Your task to perform on an android device: Search for sushi restaurants on Maps Image 0: 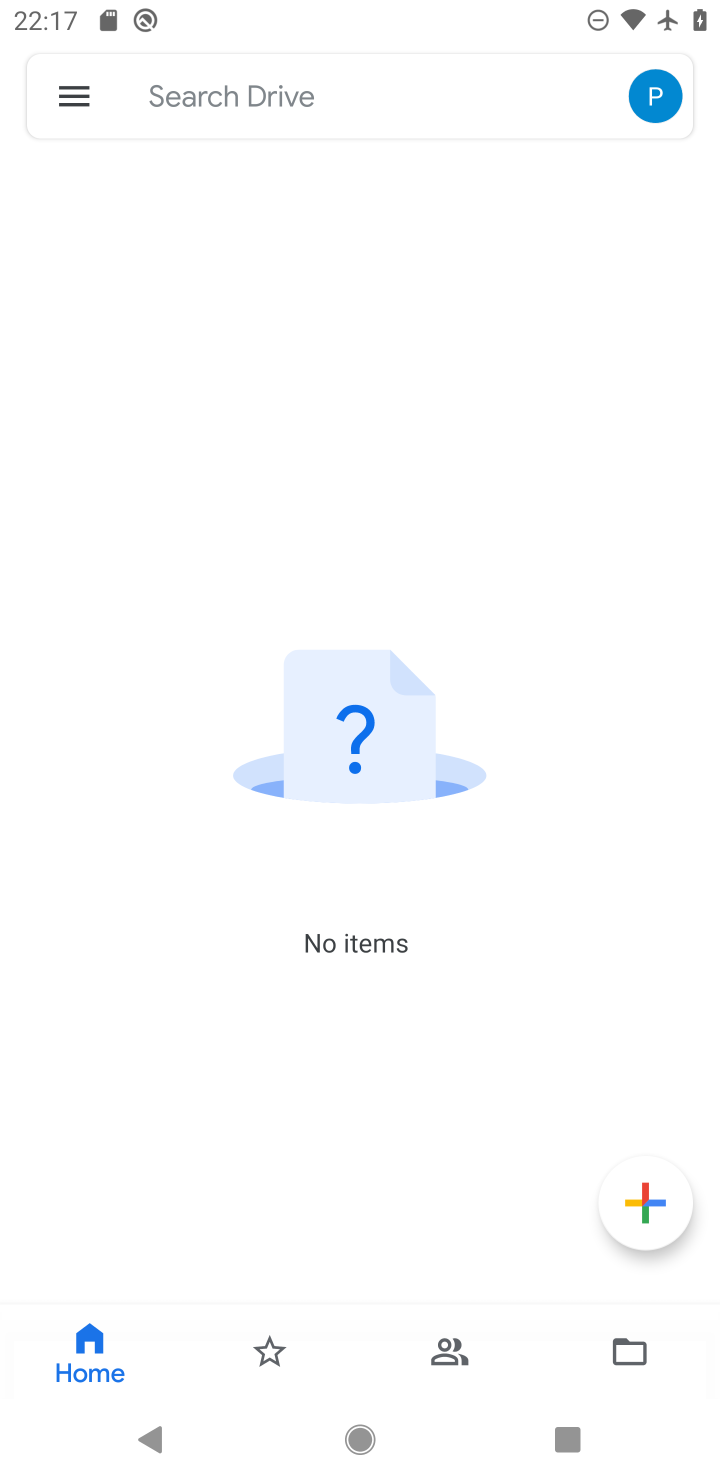
Step 0: press home button
Your task to perform on an android device: Search for sushi restaurants on Maps Image 1: 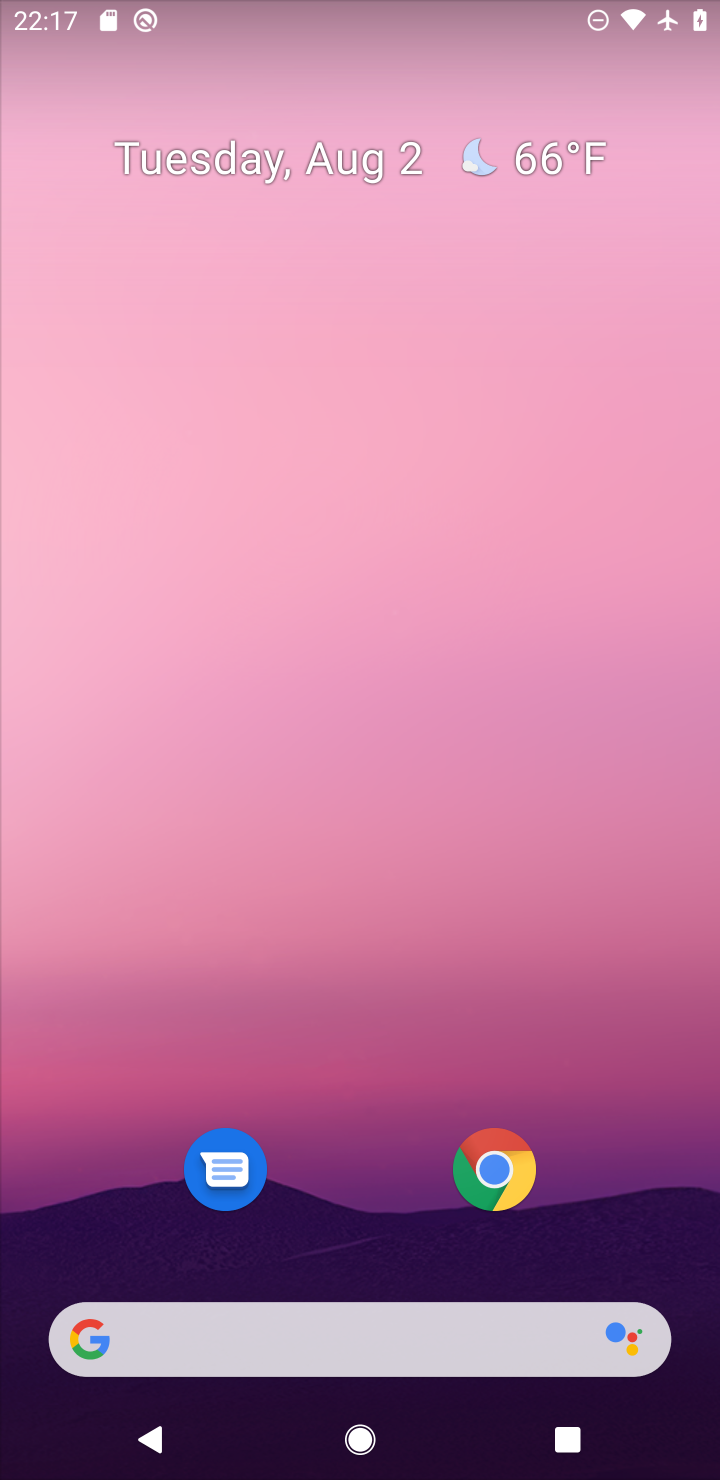
Step 1: drag from (350, 1205) to (374, 25)
Your task to perform on an android device: Search for sushi restaurants on Maps Image 2: 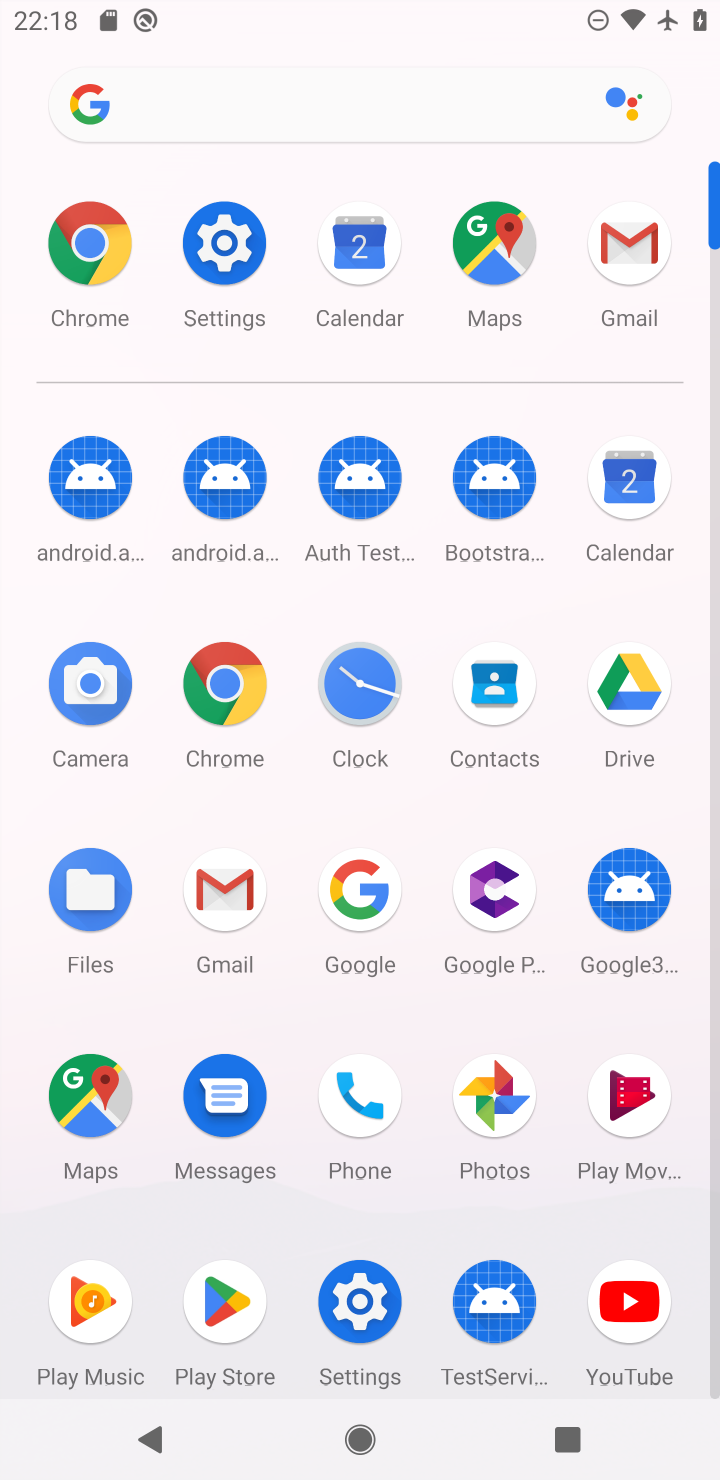
Step 2: click (105, 1095)
Your task to perform on an android device: Search for sushi restaurants on Maps Image 3: 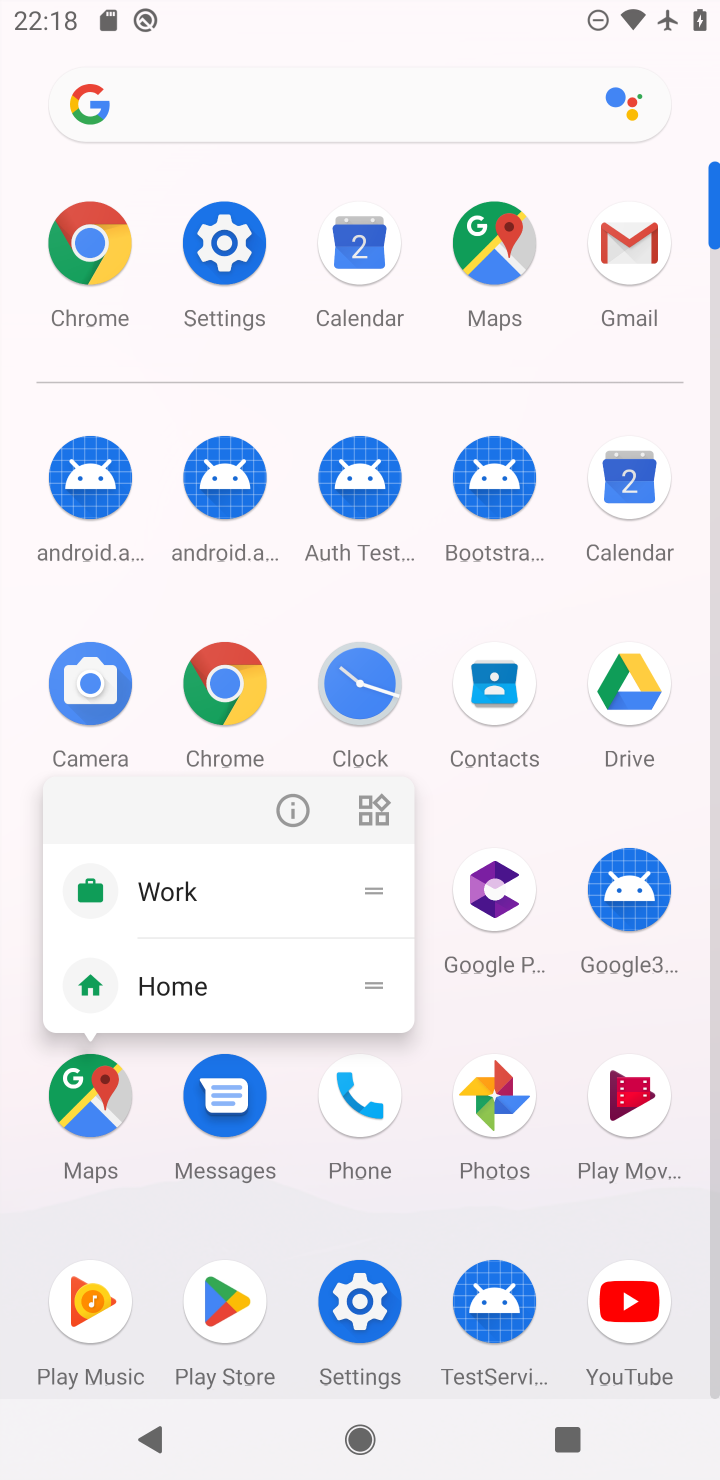
Step 3: click (88, 1097)
Your task to perform on an android device: Search for sushi restaurants on Maps Image 4: 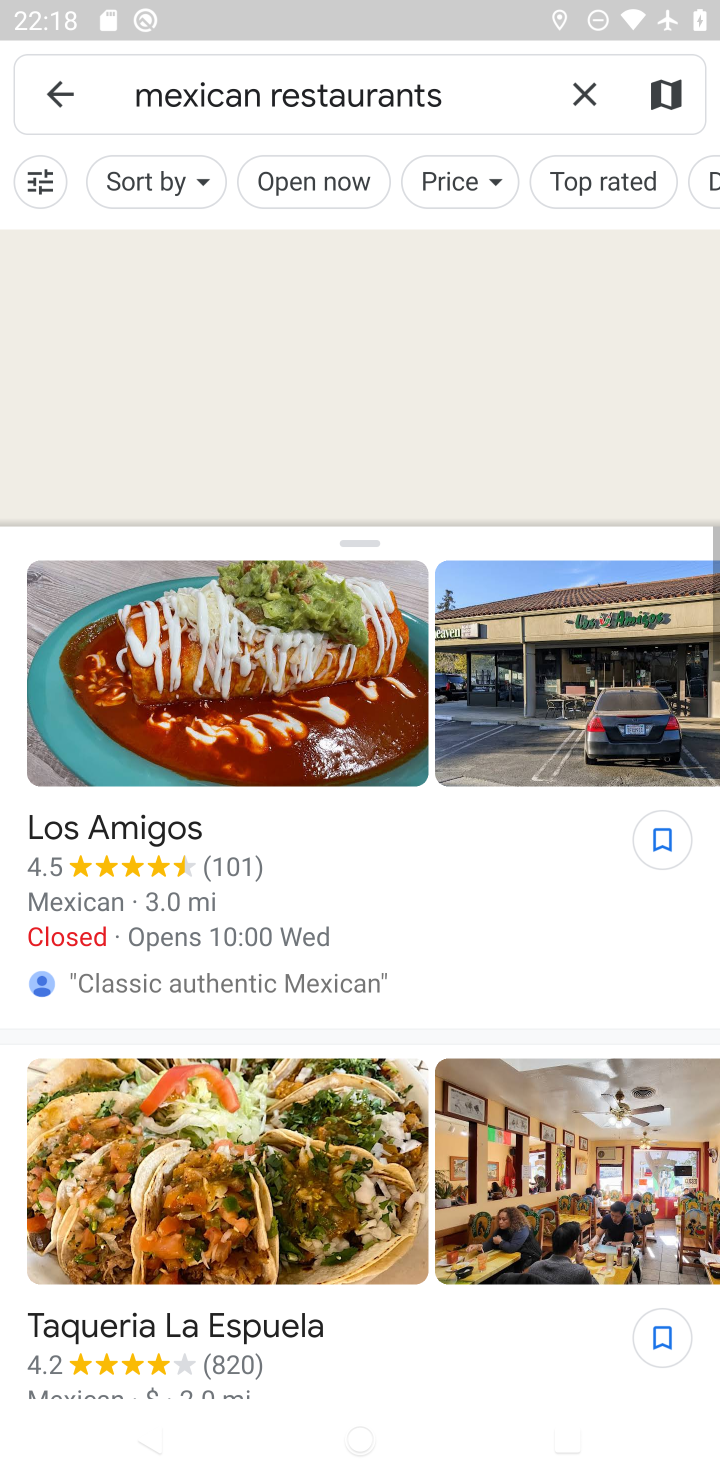
Step 4: click (582, 86)
Your task to perform on an android device: Search for sushi restaurants on Maps Image 5: 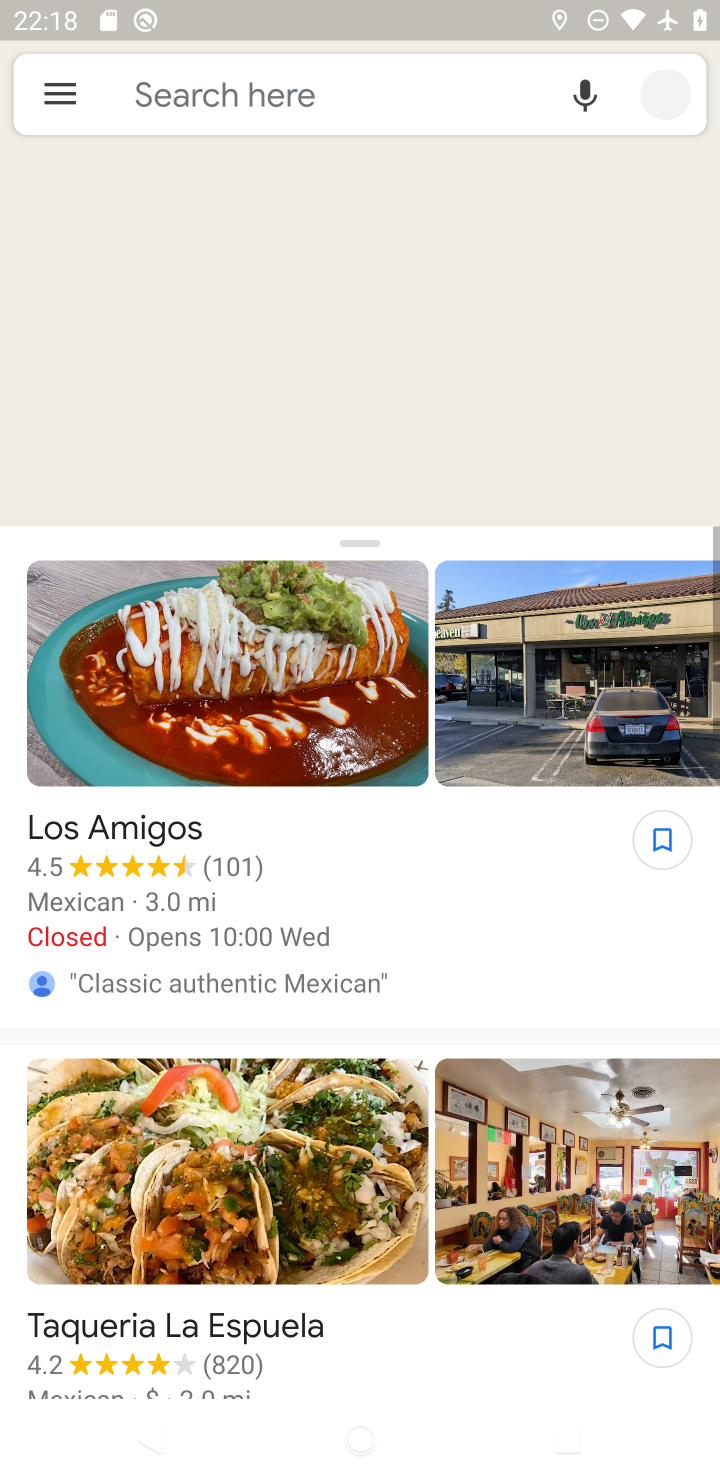
Step 5: click (345, 85)
Your task to perform on an android device: Search for sushi restaurants on Maps Image 6: 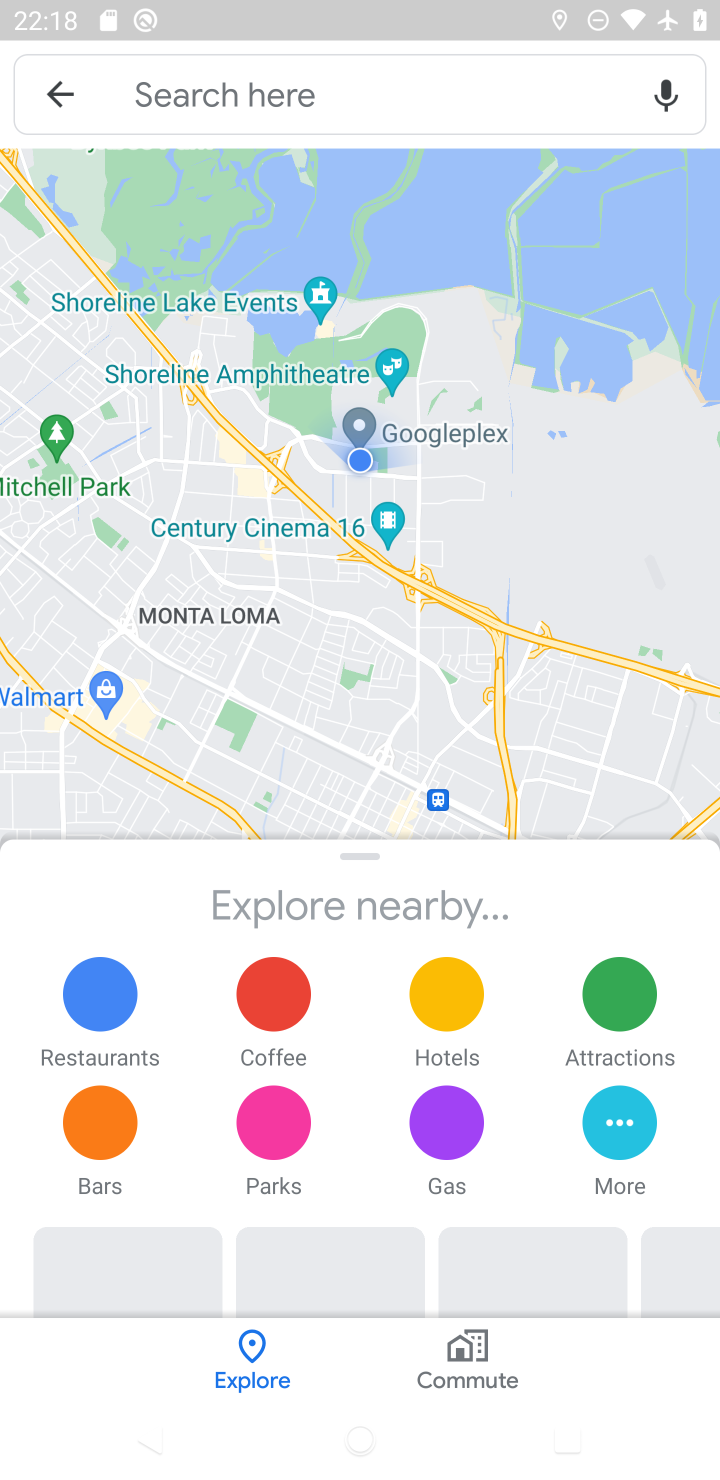
Step 6: click (345, 85)
Your task to perform on an android device: Search for sushi restaurants on Maps Image 7: 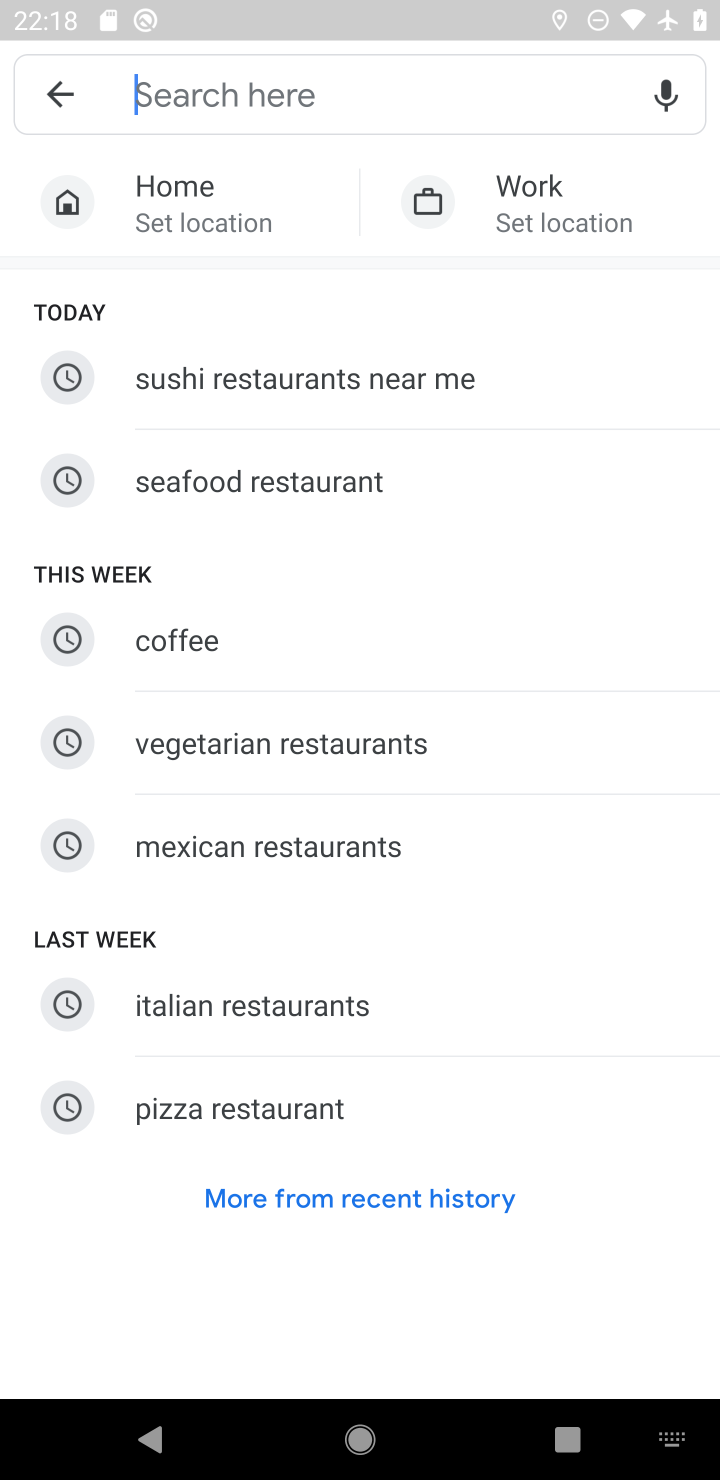
Step 7: type "Sushi restaurants"
Your task to perform on an android device: Search for sushi restaurants on Maps Image 8: 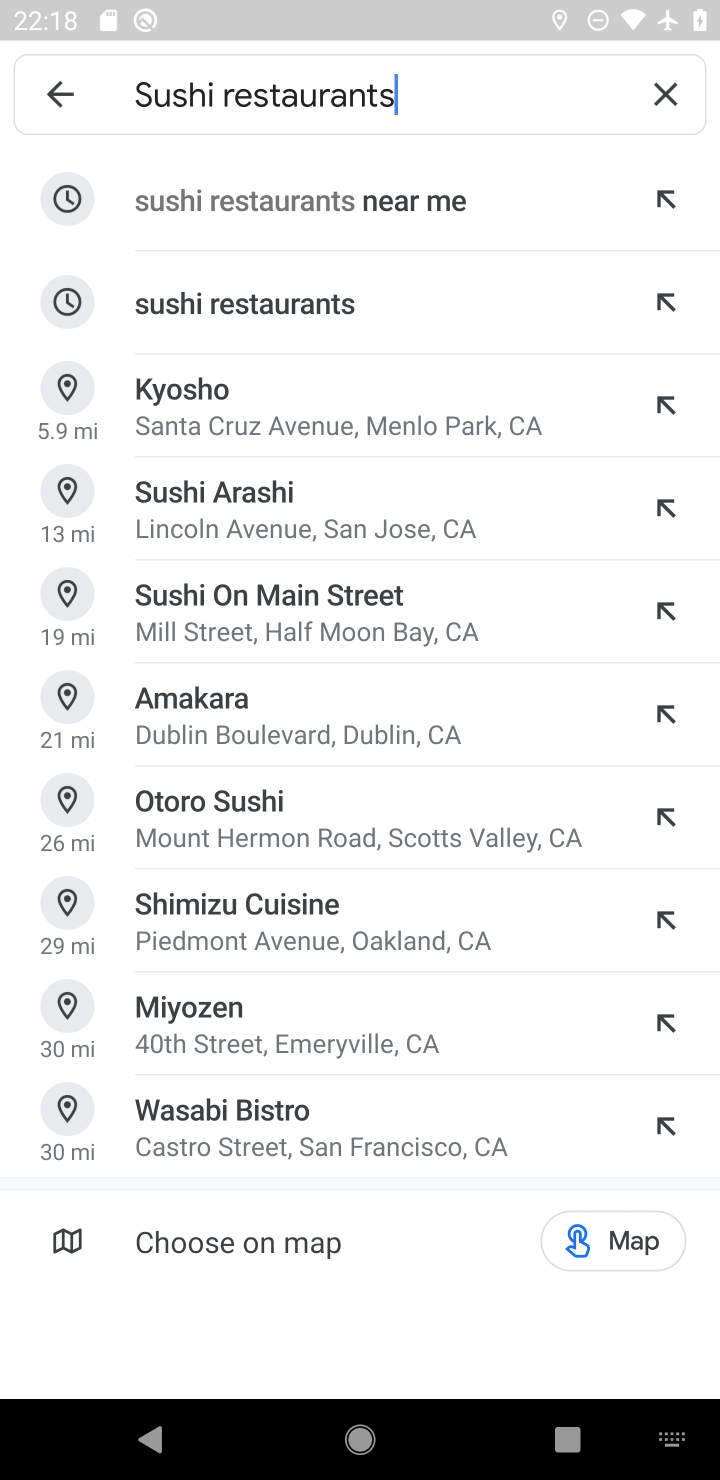
Step 8: click (246, 307)
Your task to perform on an android device: Search for sushi restaurants on Maps Image 9: 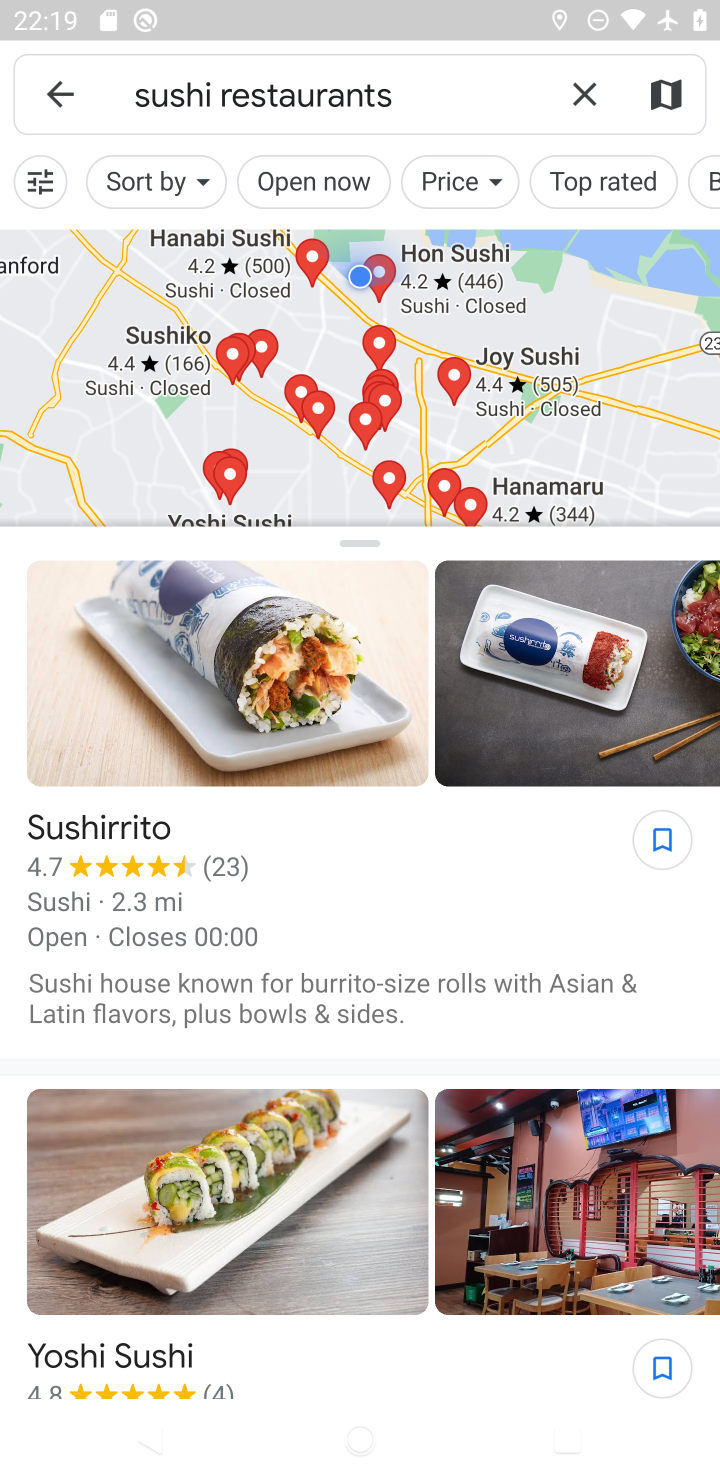
Step 9: task complete